Your task to perform on an android device: show emergency info Image 0: 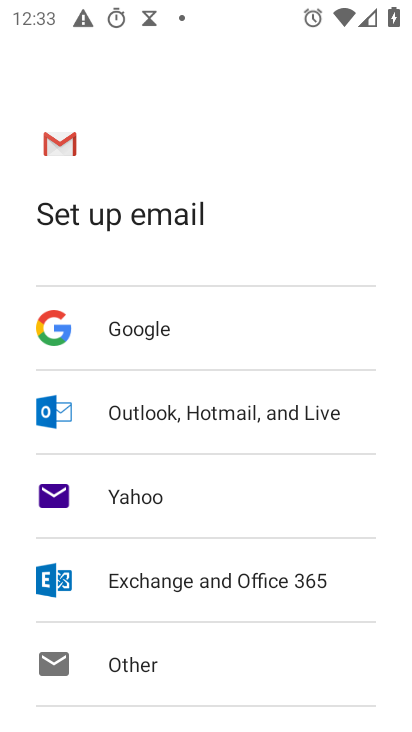
Step 0: press home button
Your task to perform on an android device: show emergency info Image 1: 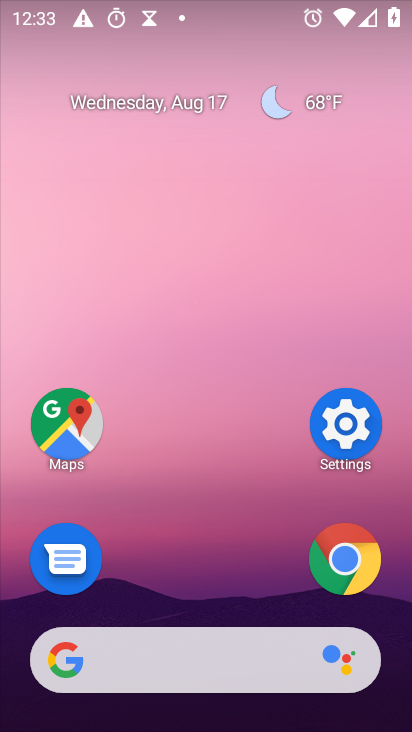
Step 1: click (341, 430)
Your task to perform on an android device: show emergency info Image 2: 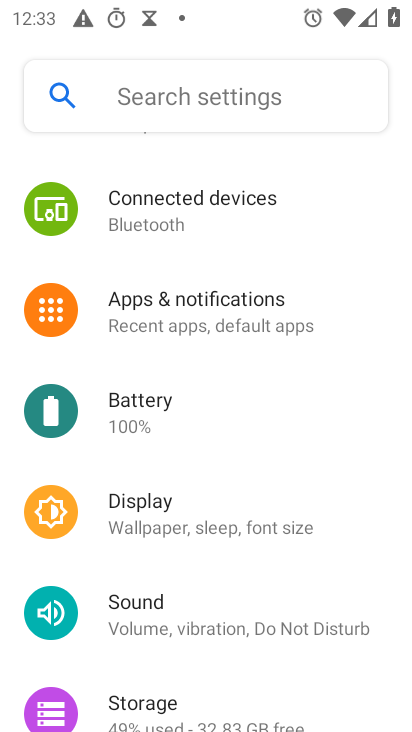
Step 2: drag from (249, 593) to (282, 196)
Your task to perform on an android device: show emergency info Image 3: 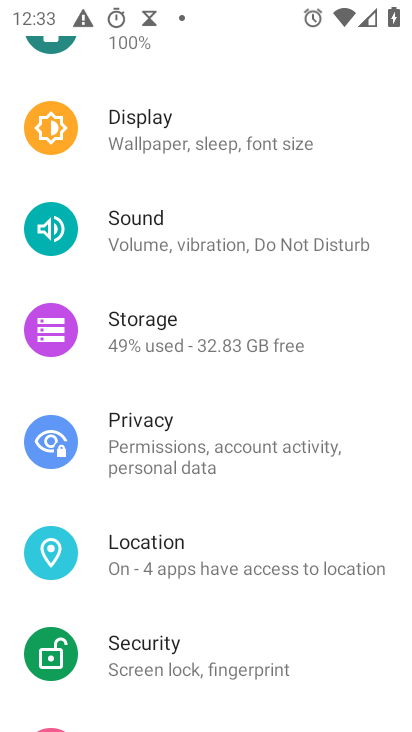
Step 3: drag from (259, 680) to (299, 129)
Your task to perform on an android device: show emergency info Image 4: 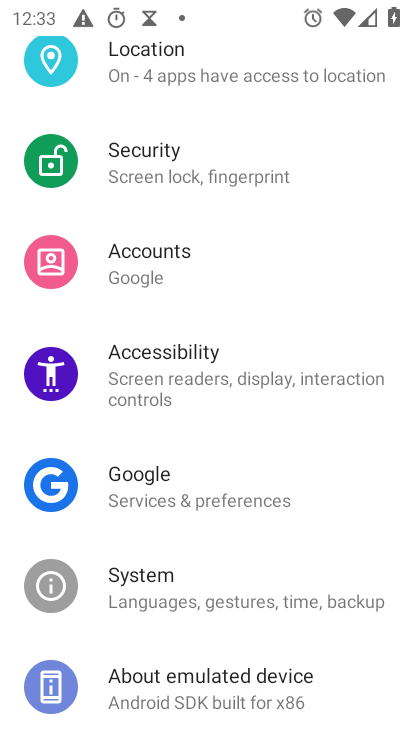
Step 4: drag from (209, 645) to (260, 142)
Your task to perform on an android device: show emergency info Image 5: 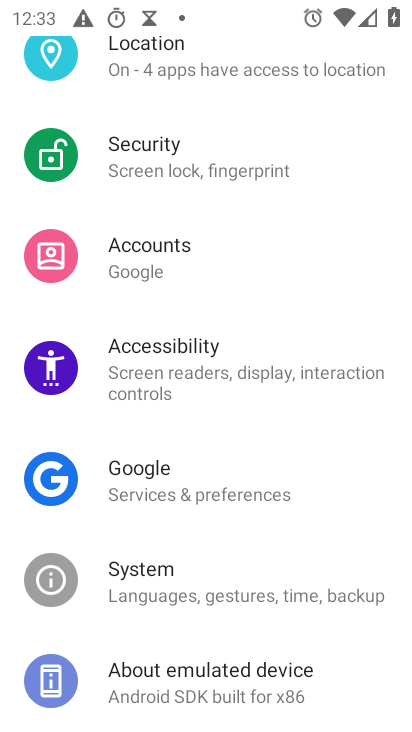
Step 5: click (210, 677)
Your task to perform on an android device: show emergency info Image 6: 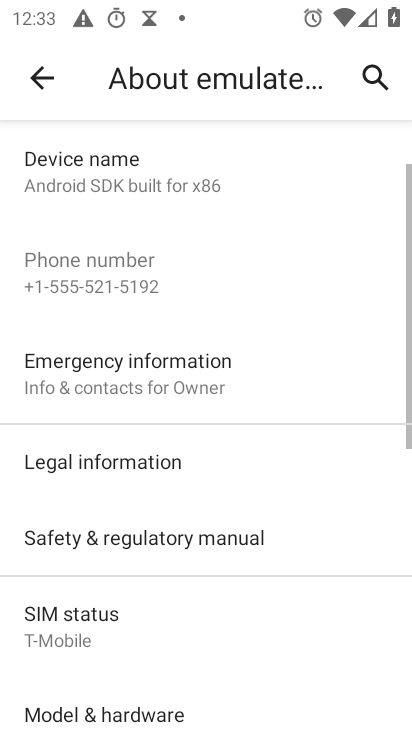
Step 6: click (169, 371)
Your task to perform on an android device: show emergency info Image 7: 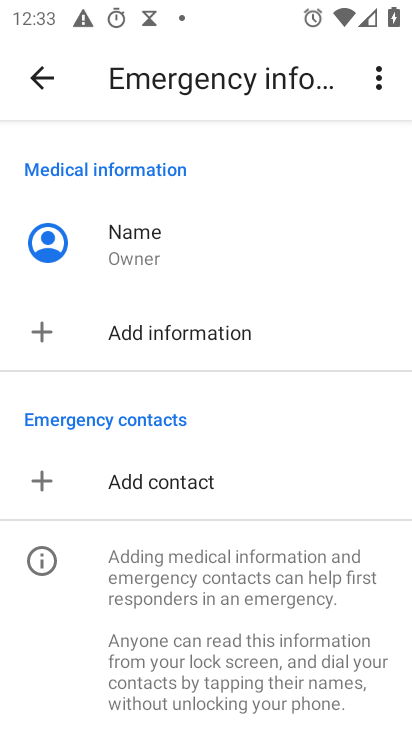
Step 7: task complete